Your task to perform on an android device: Open maps Image 0: 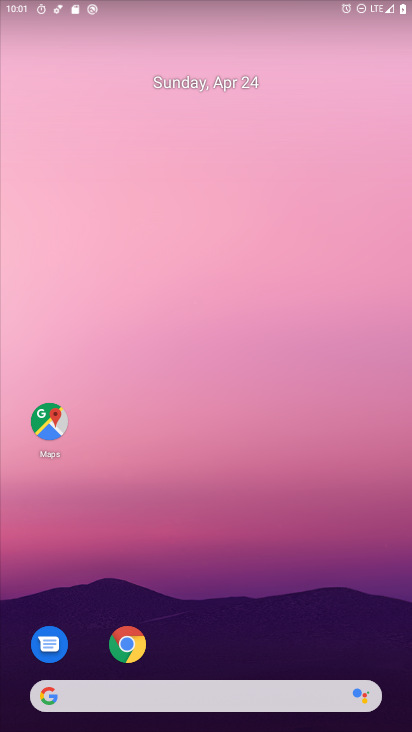
Step 0: drag from (166, 670) to (109, 63)
Your task to perform on an android device: Open maps Image 1: 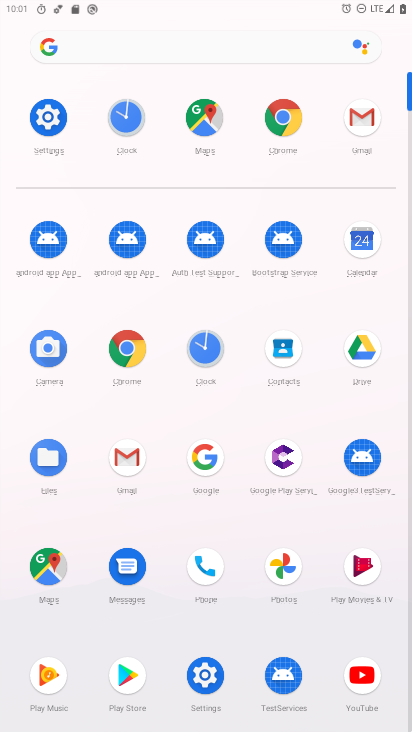
Step 1: click (38, 571)
Your task to perform on an android device: Open maps Image 2: 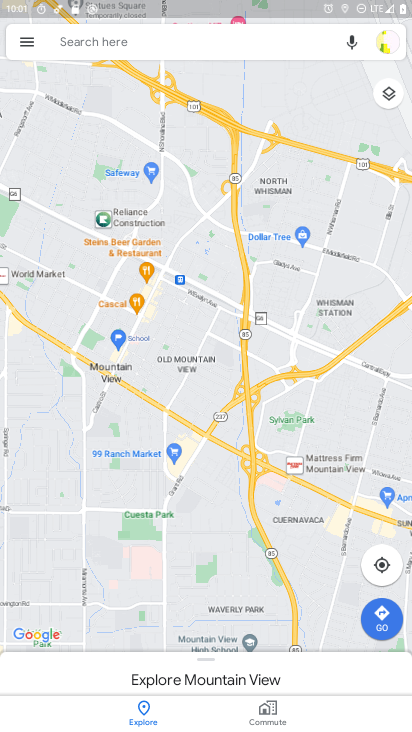
Step 2: task complete